Your task to perform on an android device: check google app version Image 0: 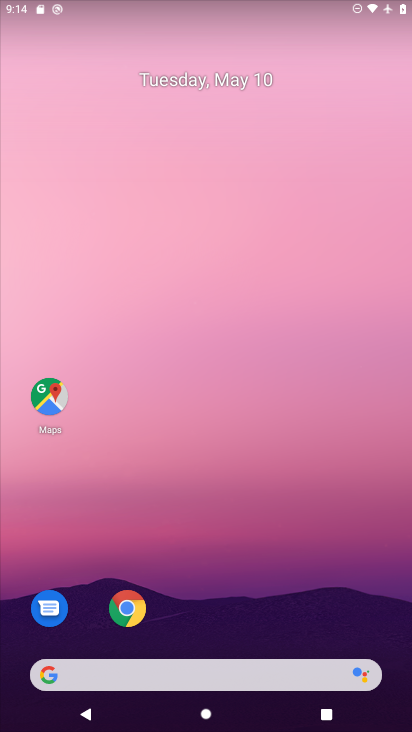
Step 0: drag from (262, 568) to (294, 220)
Your task to perform on an android device: check google app version Image 1: 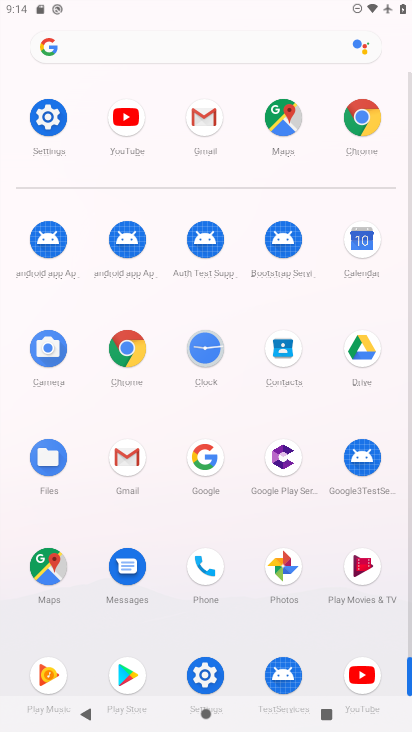
Step 1: click (200, 461)
Your task to perform on an android device: check google app version Image 2: 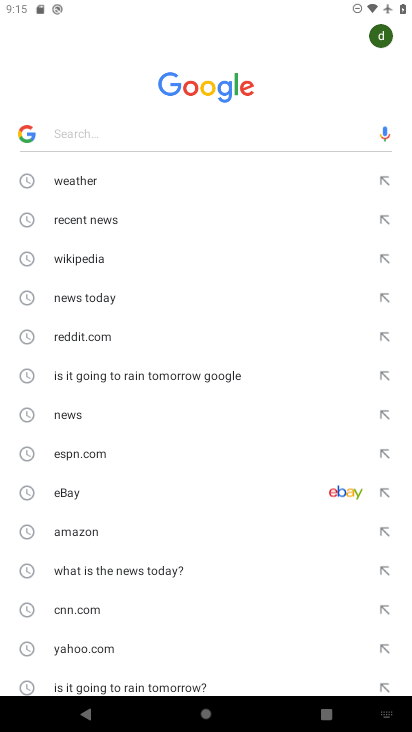
Step 2: press home button
Your task to perform on an android device: check google app version Image 3: 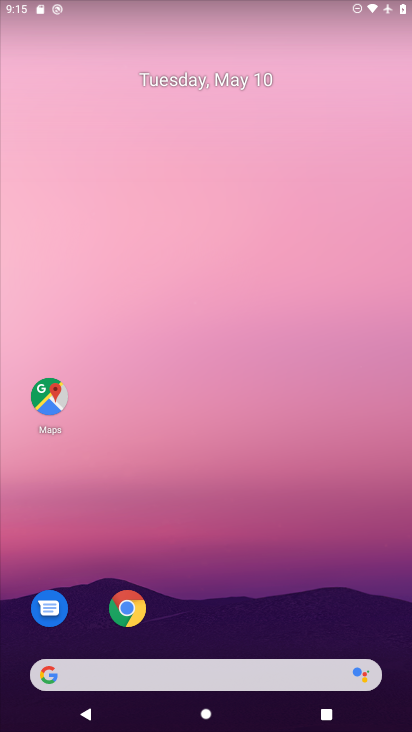
Step 3: drag from (242, 562) to (255, 269)
Your task to perform on an android device: check google app version Image 4: 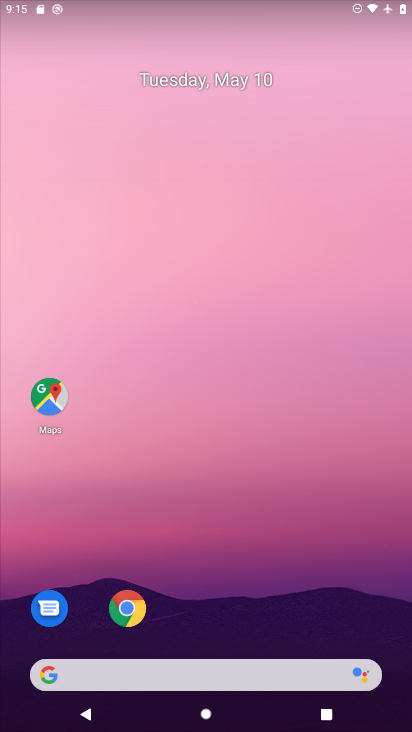
Step 4: drag from (233, 613) to (239, 204)
Your task to perform on an android device: check google app version Image 5: 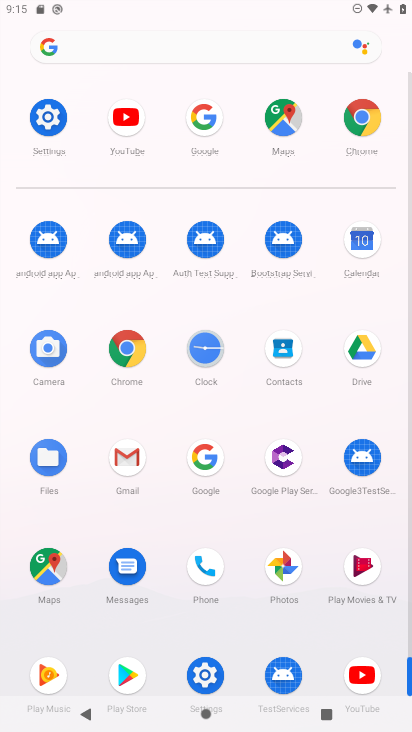
Step 5: click (208, 455)
Your task to perform on an android device: check google app version Image 6: 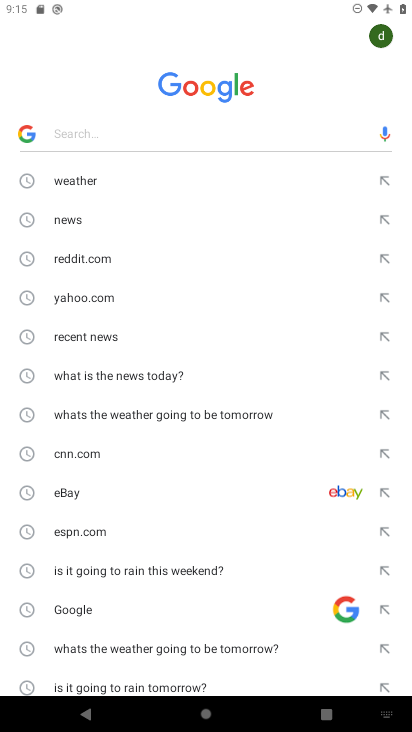
Step 6: click (26, 134)
Your task to perform on an android device: check google app version Image 7: 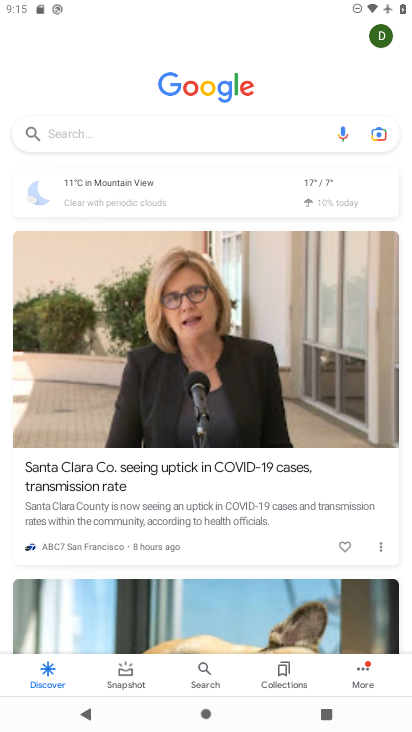
Step 7: click (355, 670)
Your task to perform on an android device: check google app version Image 8: 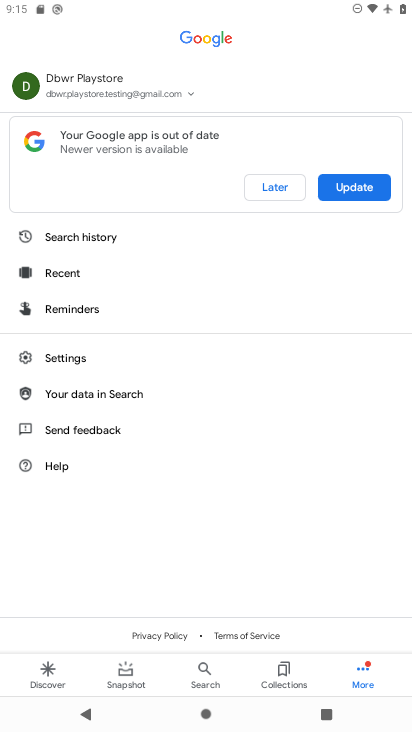
Step 8: click (75, 358)
Your task to perform on an android device: check google app version Image 9: 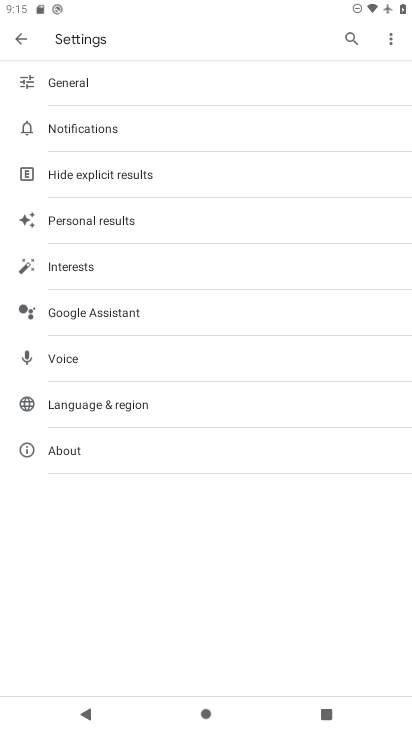
Step 9: click (87, 458)
Your task to perform on an android device: check google app version Image 10: 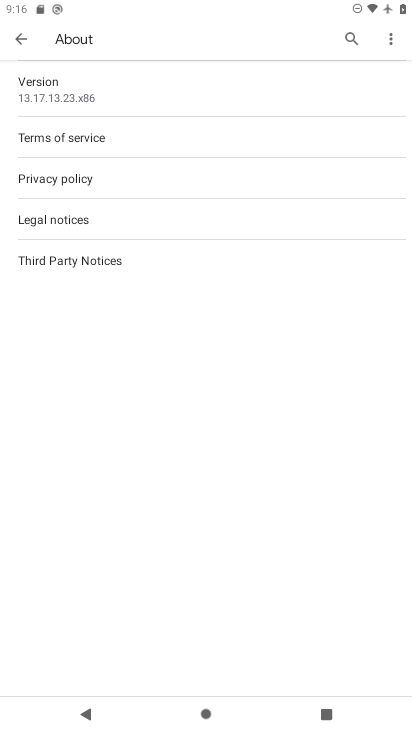
Step 10: task complete